Your task to perform on an android device: change the clock style Image 0: 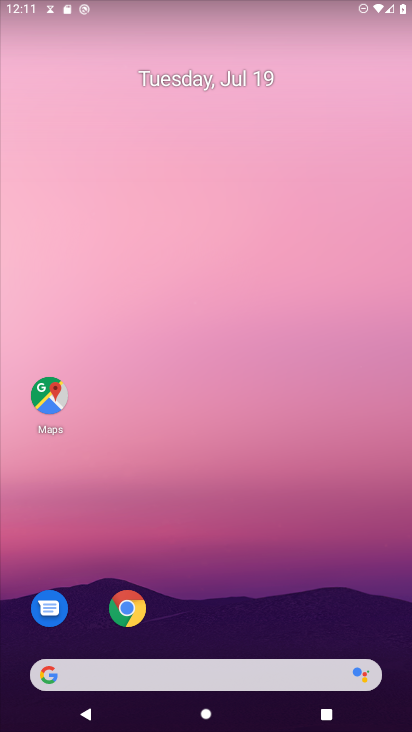
Step 0: drag from (262, 497) to (309, 95)
Your task to perform on an android device: change the clock style Image 1: 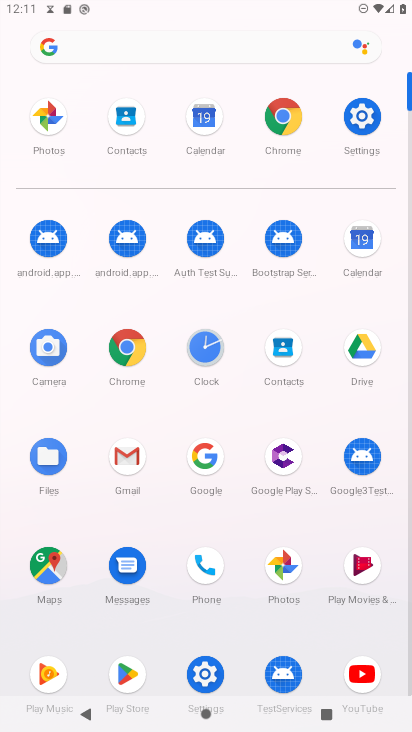
Step 1: click (209, 356)
Your task to perform on an android device: change the clock style Image 2: 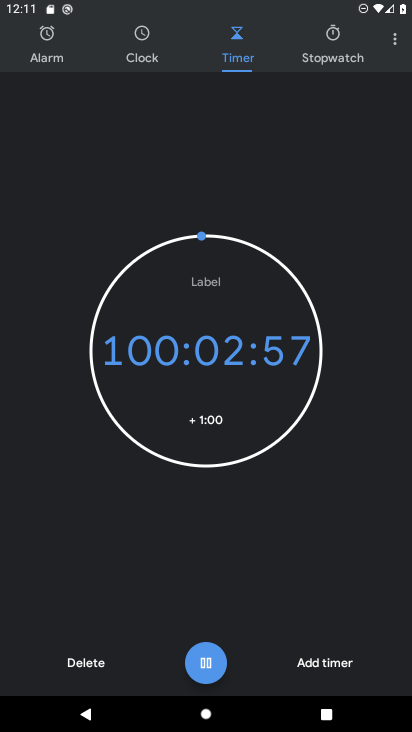
Step 2: drag from (393, 40) to (339, 140)
Your task to perform on an android device: change the clock style Image 3: 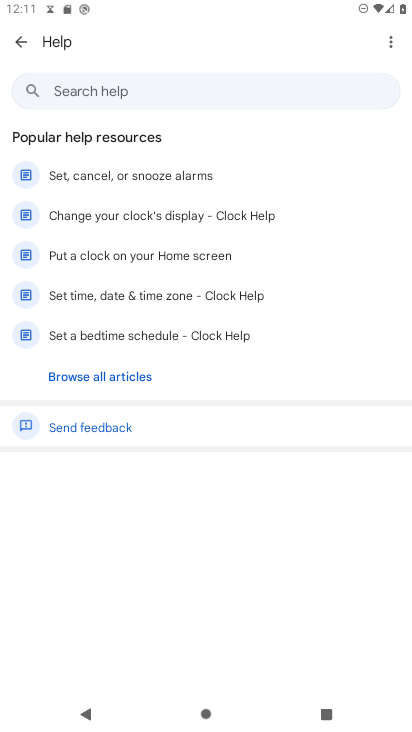
Step 3: press back button
Your task to perform on an android device: change the clock style Image 4: 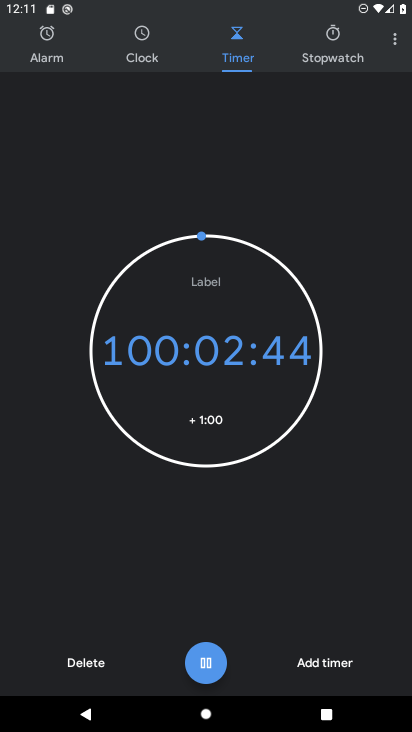
Step 4: click (393, 39)
Your task to perform on an android device: change the clock style Image 5: 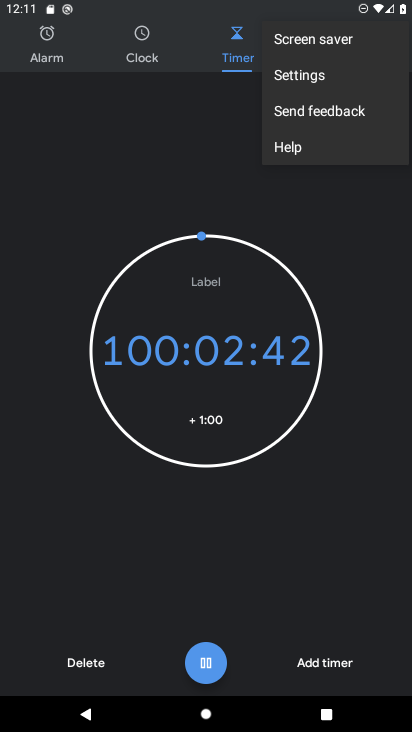
Step 5: click (357, 76)
Your task to perform on an android device: change the clock style Image 6: 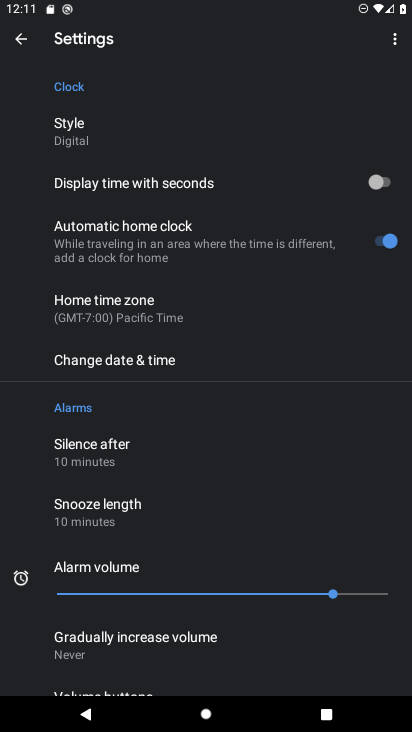
Step 6: click (158, 147)
Your task to perform on an android device: change the clock style Image 7: 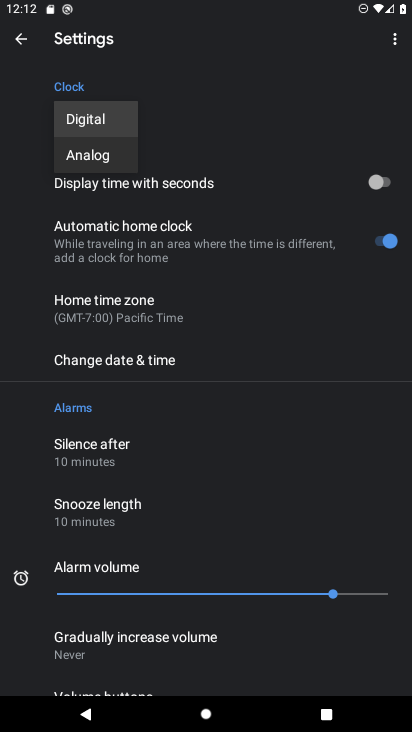
Step 7: click (99, 162)
Your task to perform on an android device: change the clock style Image 8: 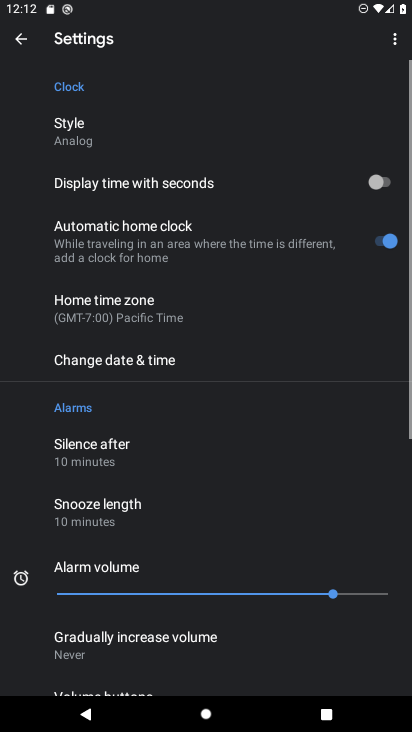
Step 8: task complete